Your task to perform on an android device: turn off improve location accuracy Image 0: 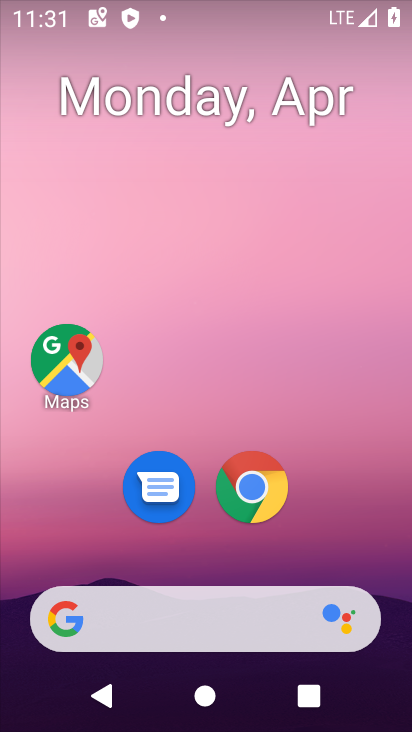
Step 0: drag from (361, 544) to (289, 231)
Your task to perform on an android device: turn off improve location accuracy Image 1: 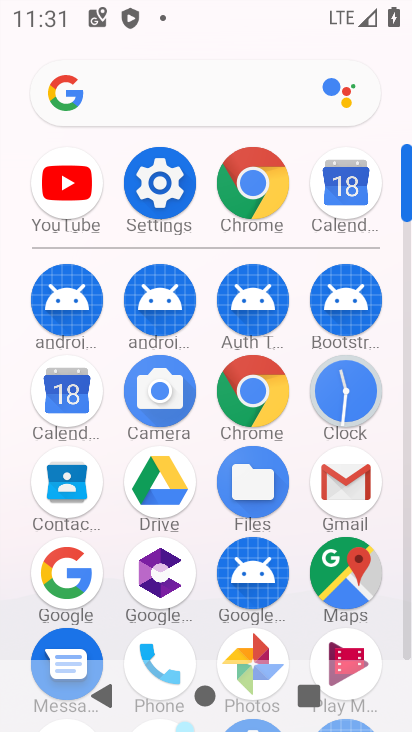
Step 1: click (159, 174)
Your task to perform on an android device: turn off improve location accuracy Image 2: 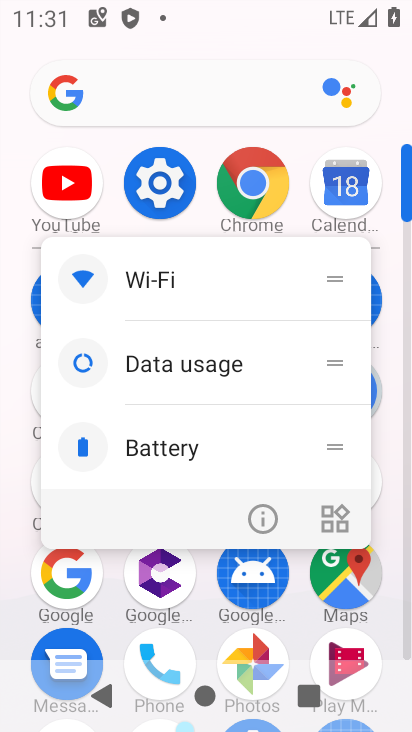
Step 2: click (164, 162)
Your task to perform on an android device: turn off improve location accuracy Image 3: 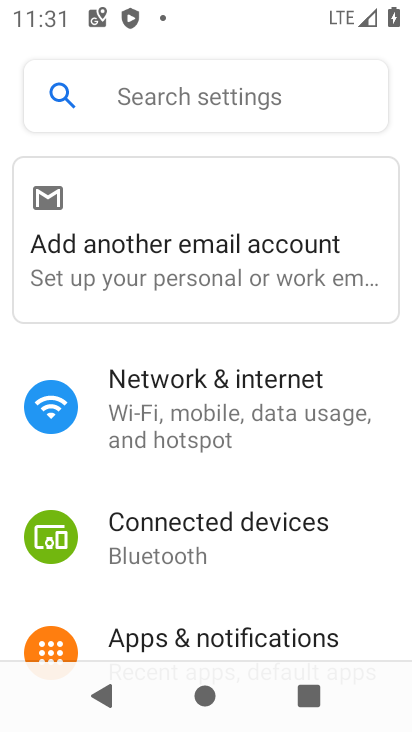
Step 3: drag from (296, 581) to (255, 138)
Your task to perform on an android device: turn off improve location accuracy Image 4: 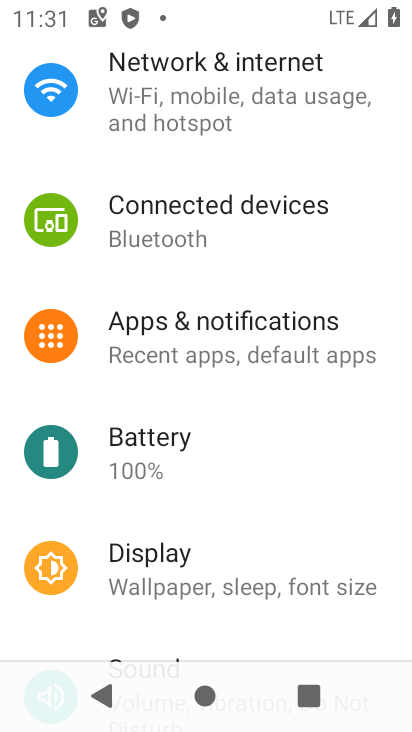
Step 4: drag from (305, 440) to (250, 174)
Your task to perform on an android device: turn off improve location accuracy Image 5: 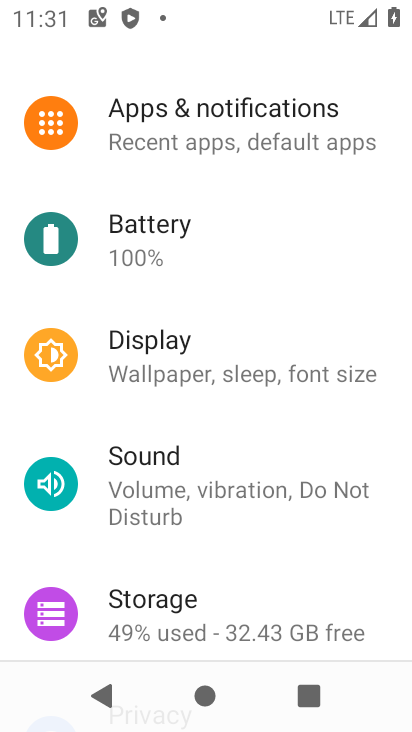
Step 5: drag from (308, 578) to (280, 171)
Your task to perform on an android device: turn off improve location accuracy Image 6: 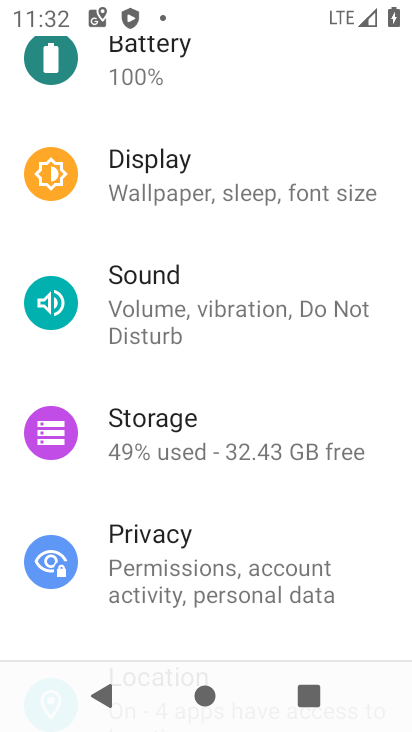
Step 6: drag from (335, 503) to (283, 226)
Your task to perform on an android device: turn off improve location accuracy Image 7: 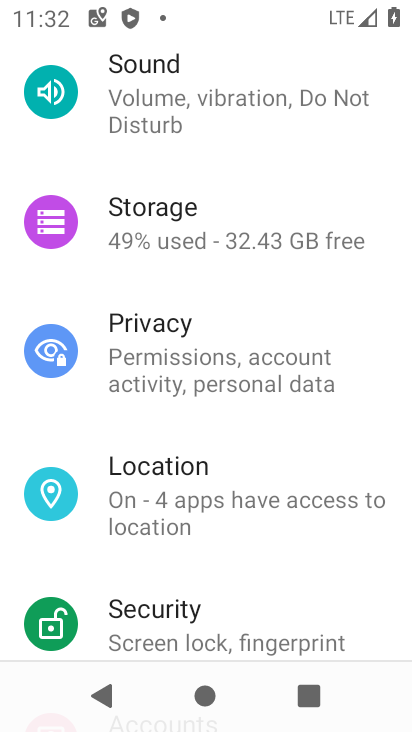
Step 7: click (288, 520)
Your task to perform on an android device: turn off improve location accuracy Image 8: 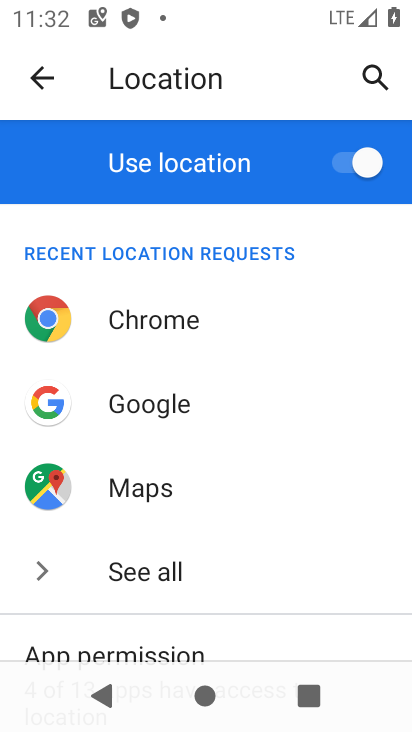
Step 8: drag from (309, 565) to (276, 337)
Your task to perform on an android device: turn off improve location accuracy Image 9: 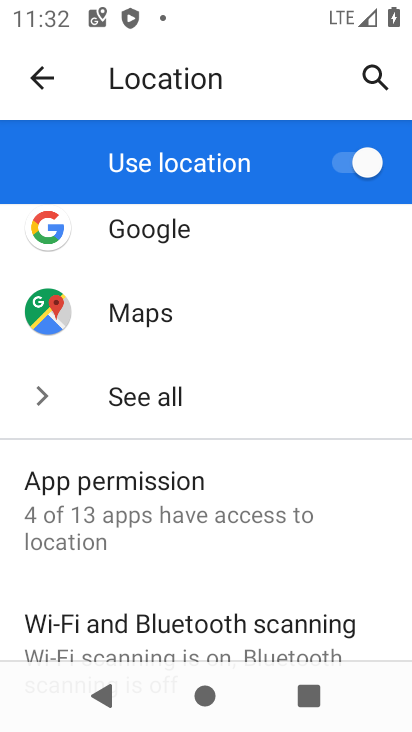
Step 9: drag from (325, 511) to (286, 263)
Your task to perform on an android device: turn off improve location accuracy Image 10: 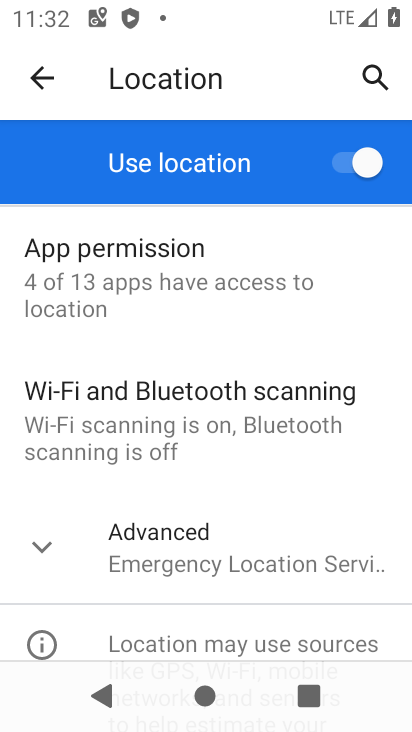
Step 10: drag from (313, 486) to (297, 314)
Your task to perform on an android device: turn off improve location accuracy Image 11: 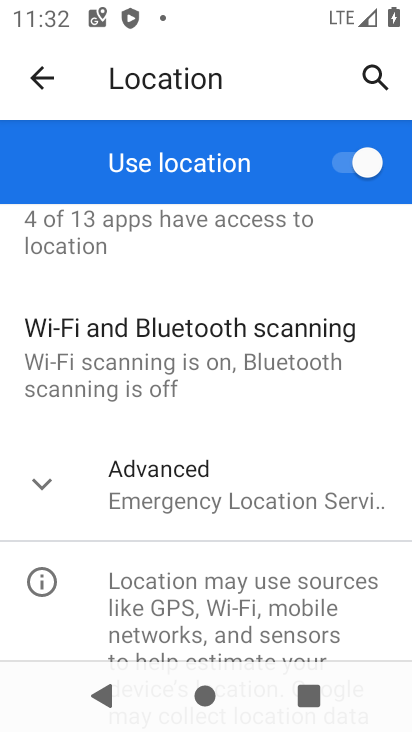
Step 11: click (272, 504)
Your task to perform on an android device: turn off improve location accuracy Image 12: 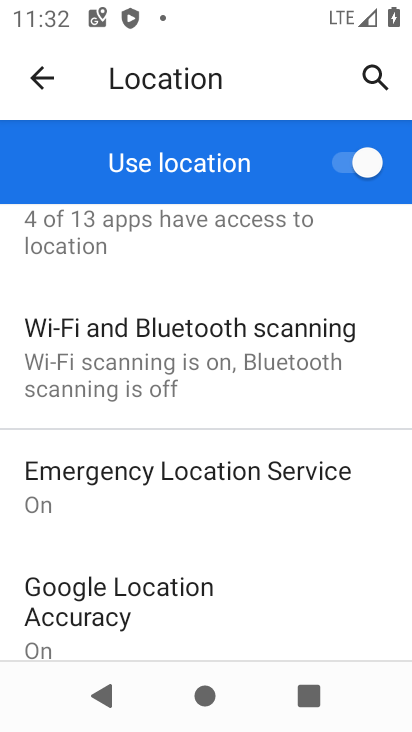
Step 12: drag from (292, 559) to (249, 403)
Your task to perform on an android device: turn off improve location accuracy Image 13: 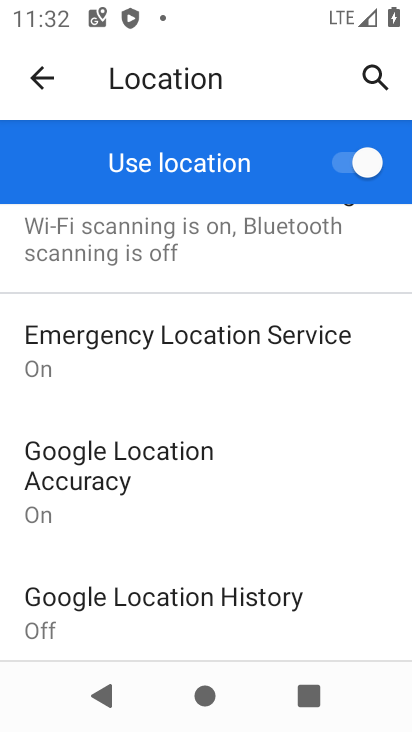
Step 13: click (267, 488)
Your task to perform on an android device: turn off improve location accuracy Image 14: 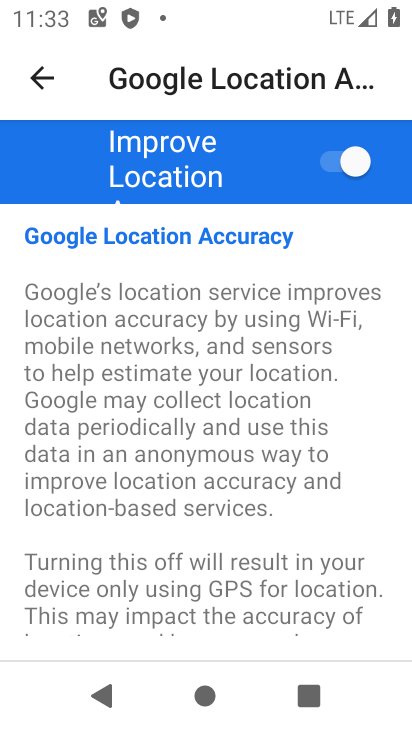
Step 14: click (338, 160)
Your task to perform on an android device: turn off improve location accuracy Image 15: 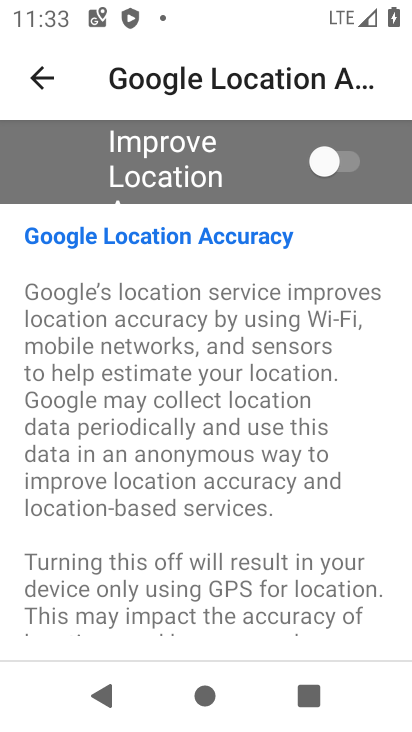
Step 15: task complete